Your task to perform on an android device: Clear the shopping cart on bestbuy.com. Add "dell alienware" to the cart on bestbuy.com Image 0: 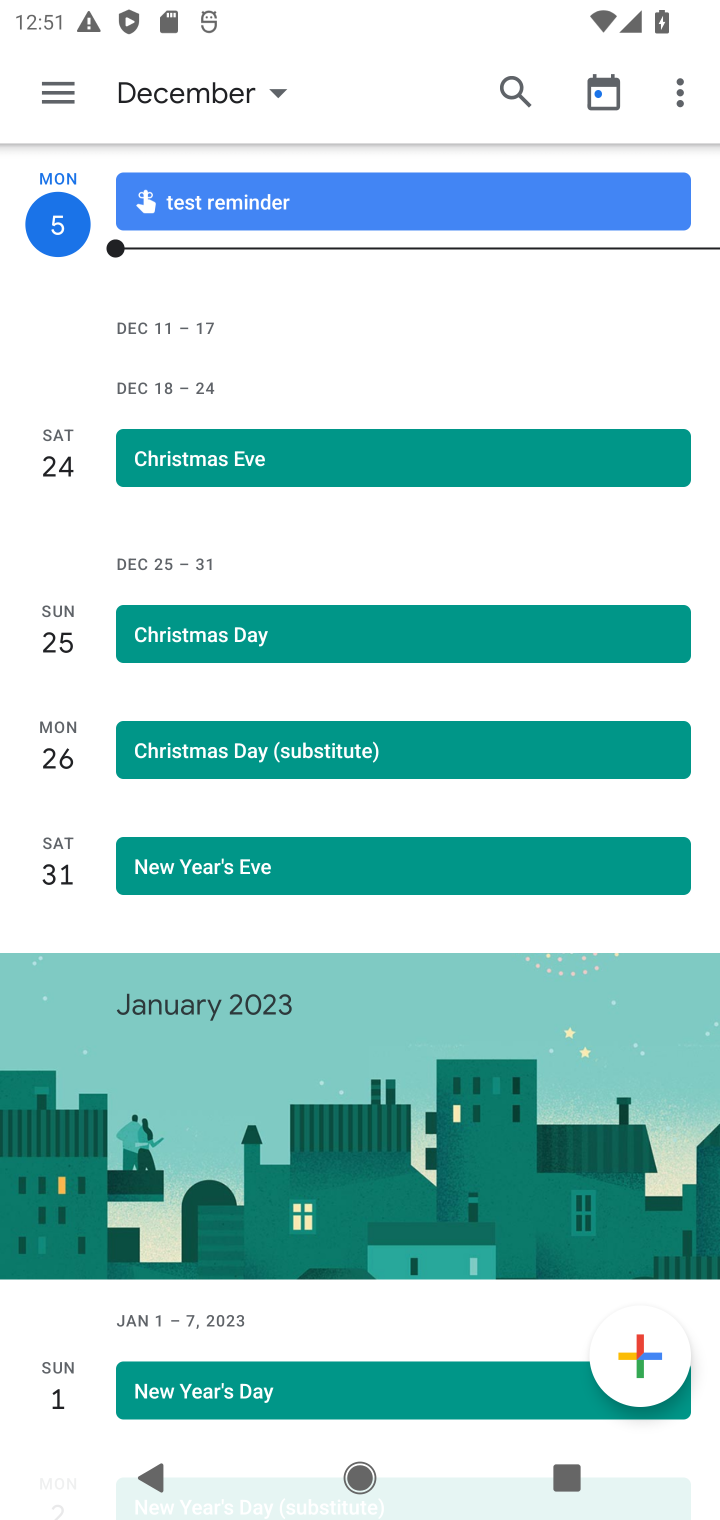
Step 0: press home button
Your task to perform on an android device: Clear the shopping cart on bestbuy.com. Add "dell alienware" to the cart on bestbuy.com Image 1: 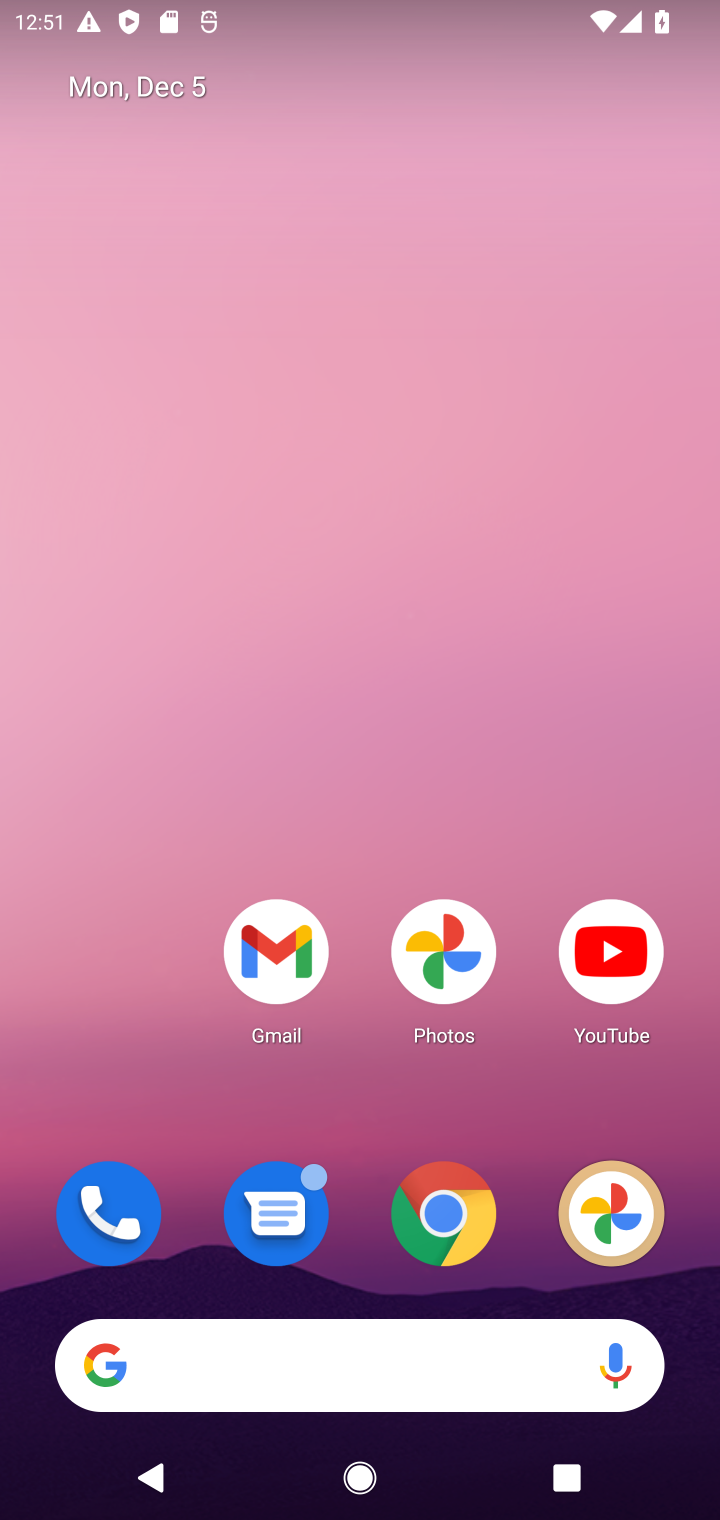
Step 1: click (432, 1224)
Your task to perform on an android device: Clear the shopping cart on bestbuy.com. Add "dell alienware" to the cart on bestbuy.com Image 2: 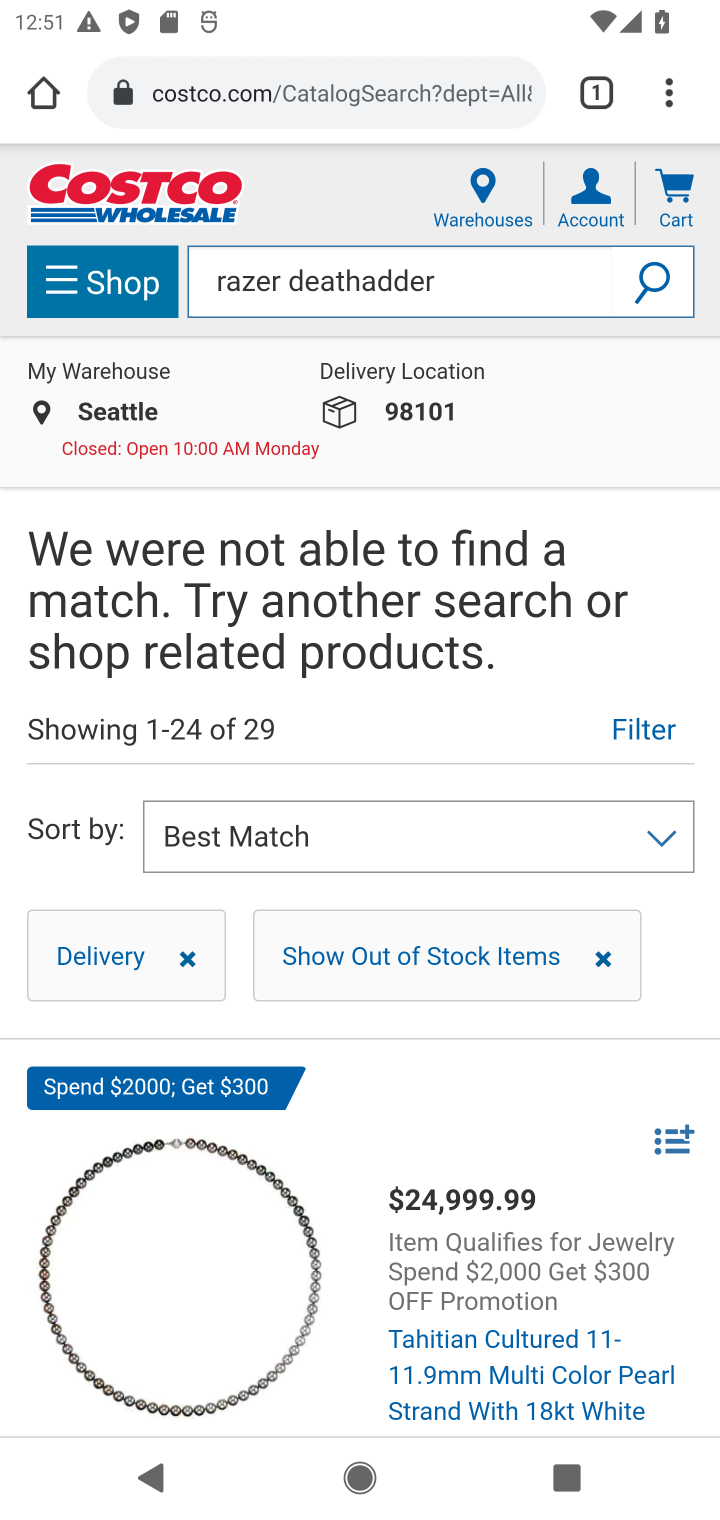
Step 2: click (278, 100)
Your task to perform on an android device: Clear the shopping cart on bestbuy.com. Add "dell alienware" to the cart on bestbuy.com Image 3: 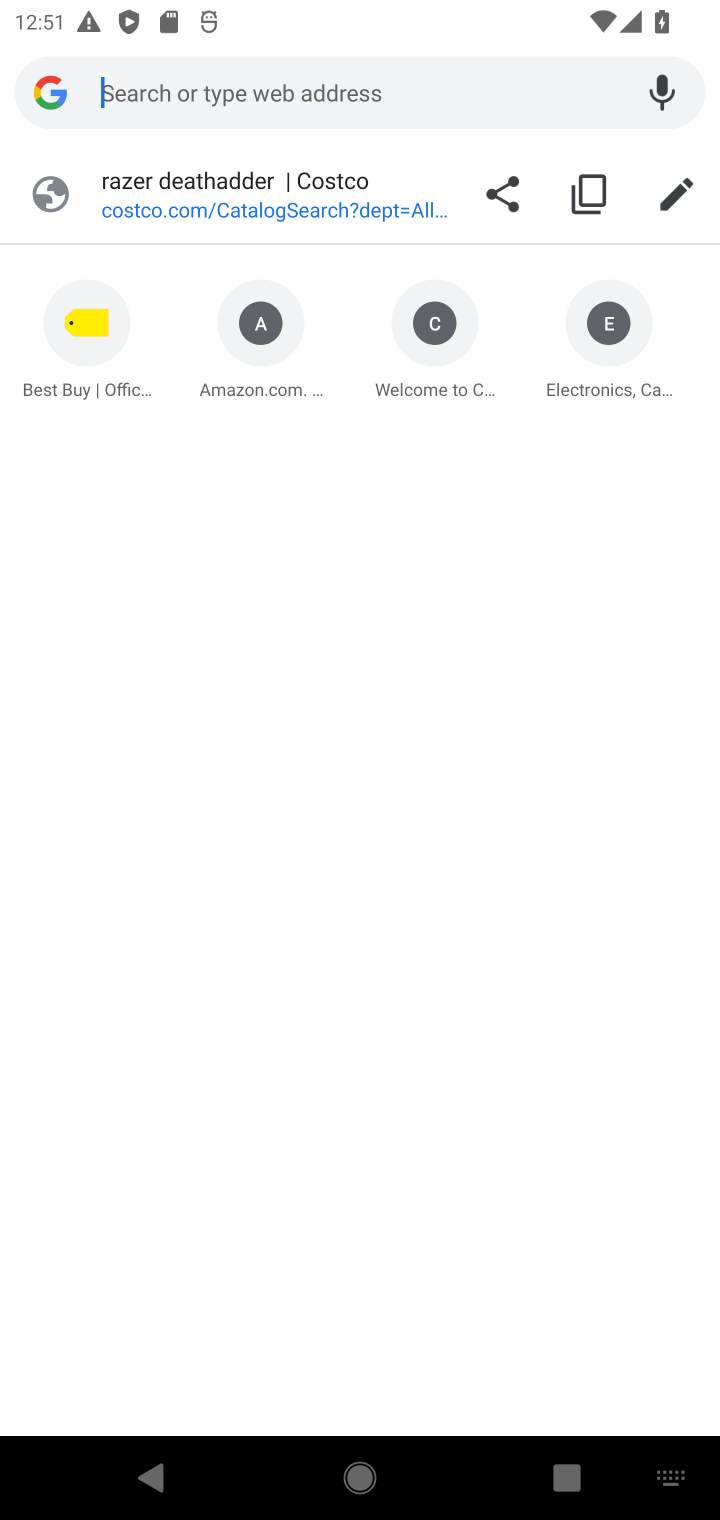
Step 3: click (78, 344)
Your task to perform on an android device: Clear the shopping cart on bestbuy.com. Add "dell alienware" to the cart on bestbuy.com Image 4: 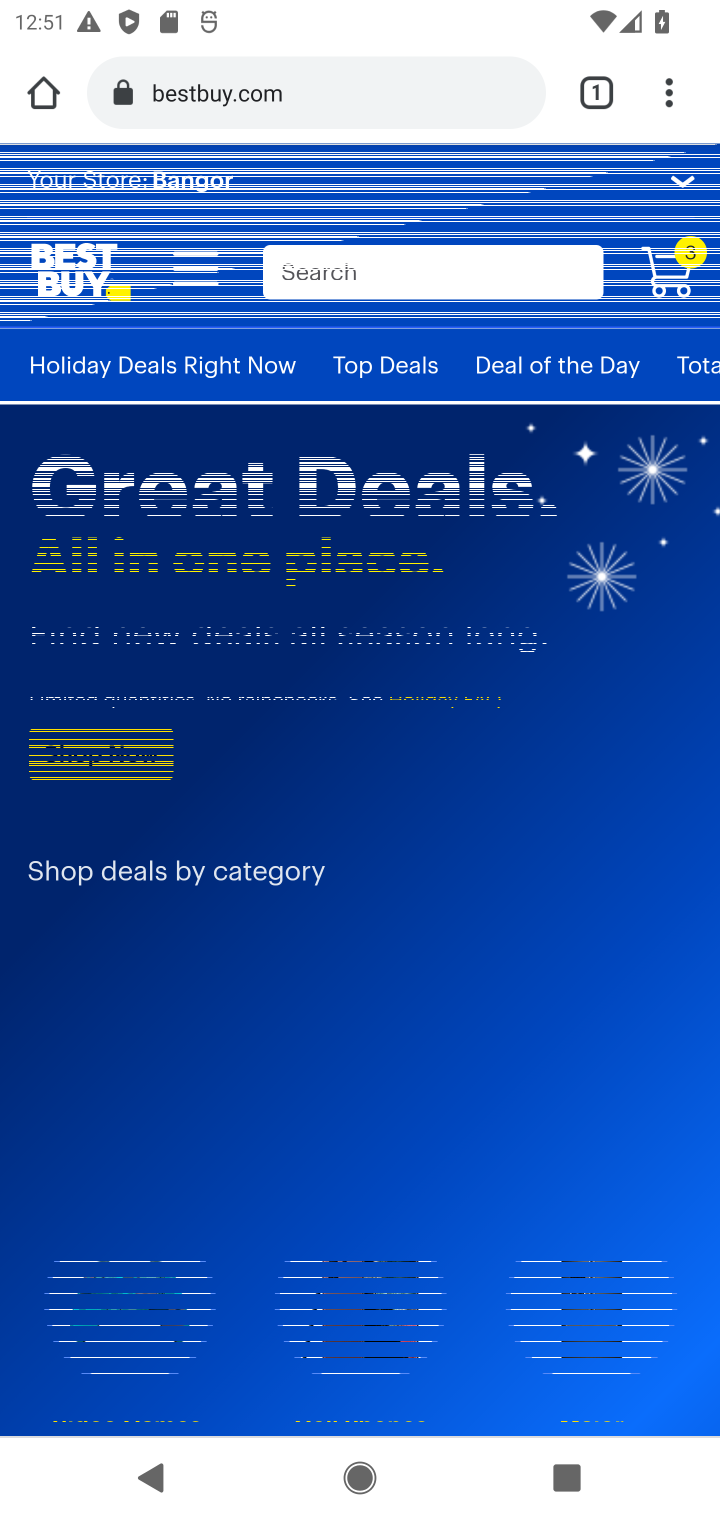
Step 4: click (679, 285)
Your task to perform on an android device: Clear the shopping cart on bestbuy.com. Add "dell alienware" to the cart on bestbuy.com Image 5: 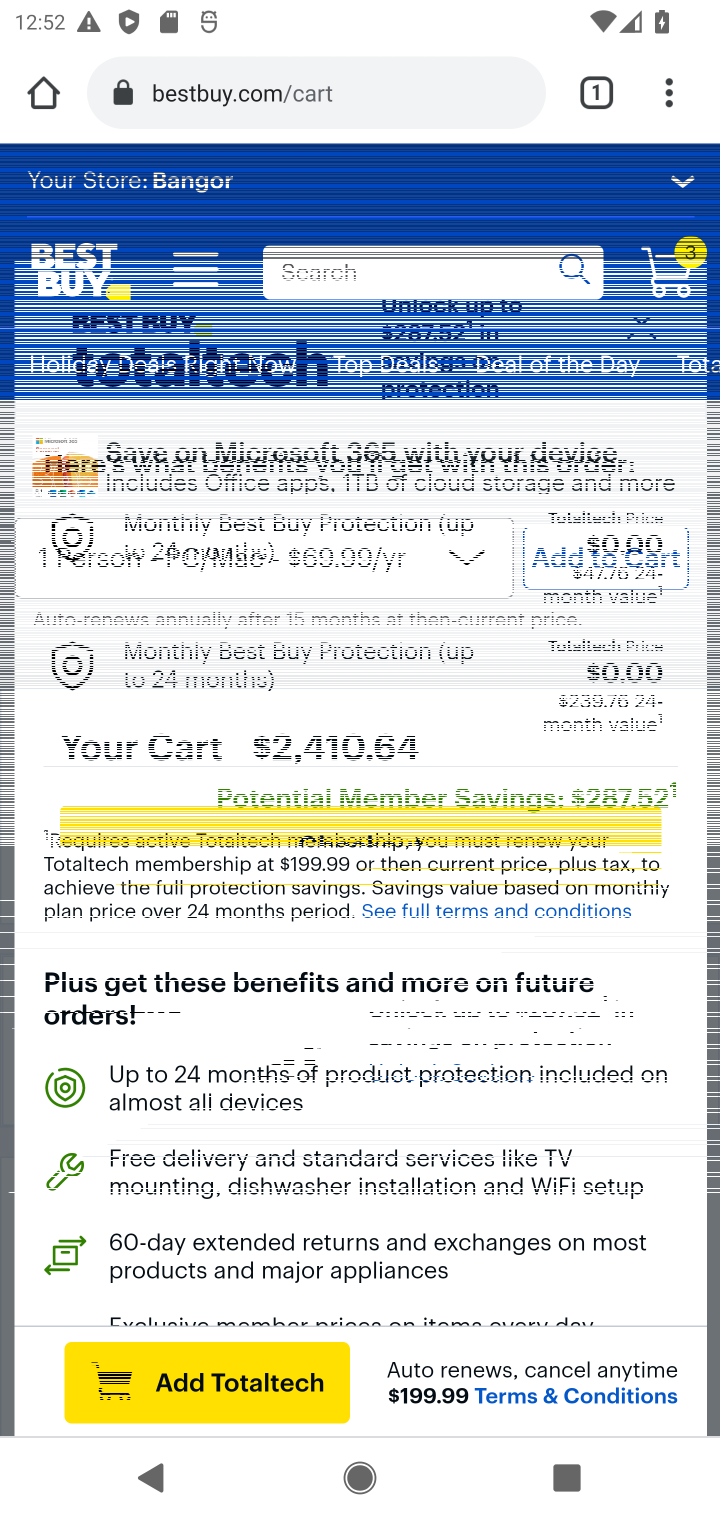
Step 5: drag from (353, 1079) to (434, 561)
Your task to perform on an android device: Clear the shopping cart on bestbuy.com. Add "dell alienware" to the cart on bestbuy.com Image 6: 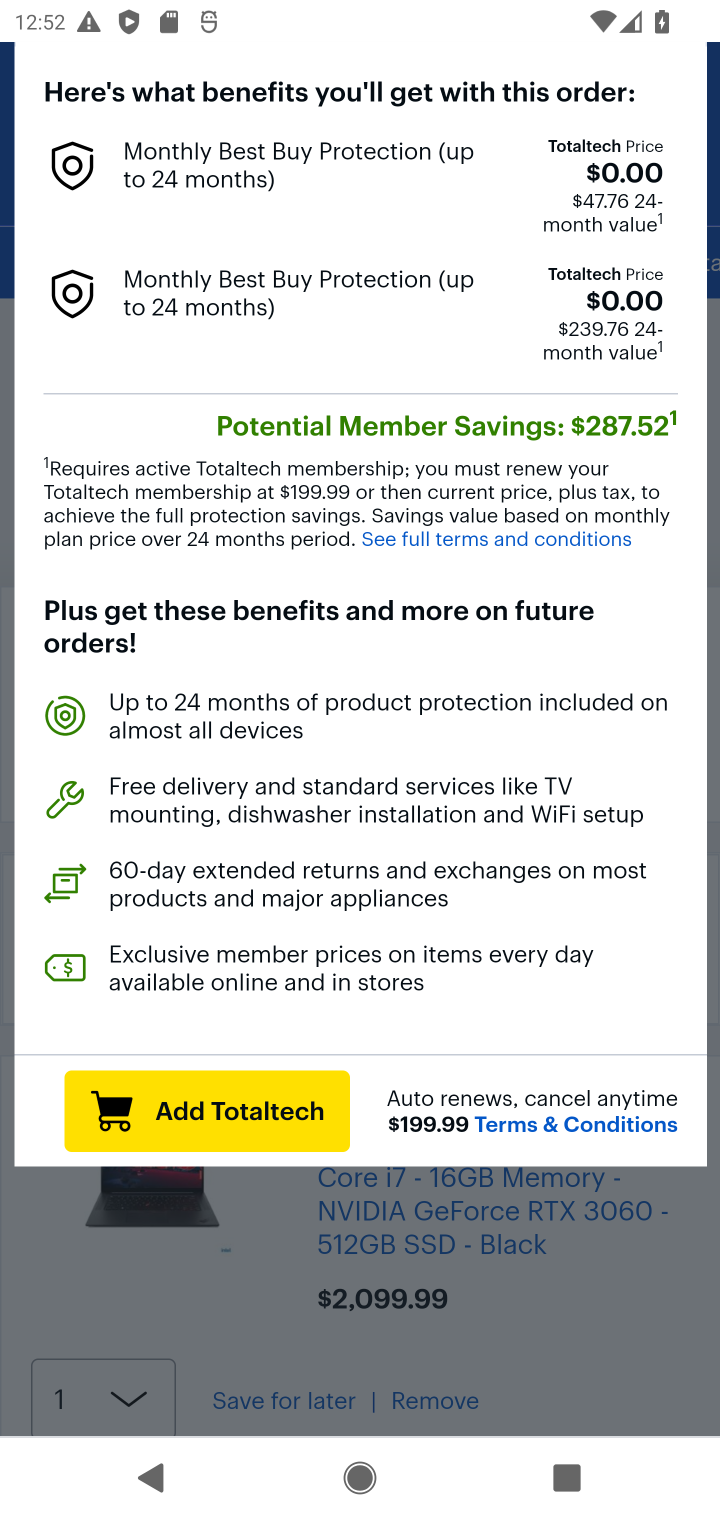
Step 6: click (442, 1404)
Your task to perform on an android device: Clear the shopping cart on bestbuy.com. Add "dell alienware" to the cart on bestbuy.com Image 7: 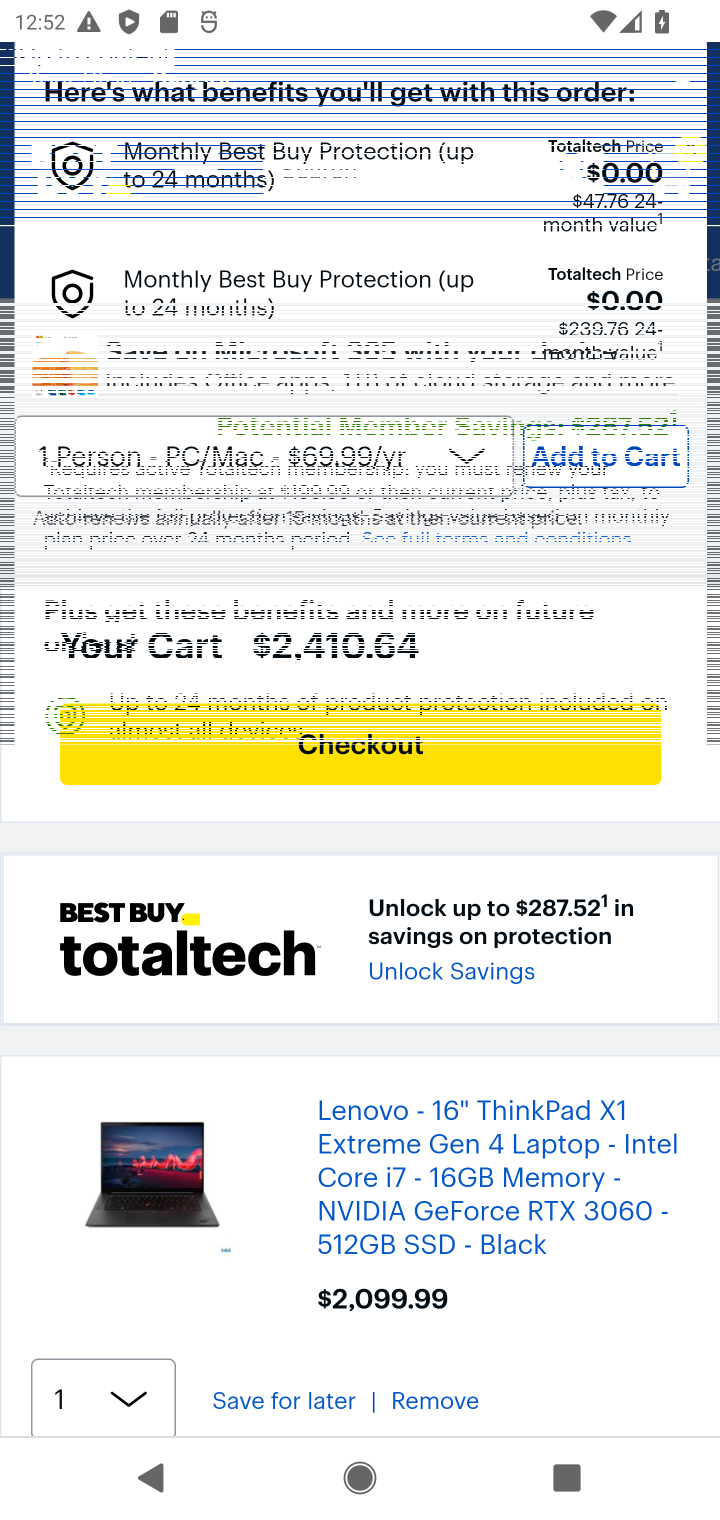
Step 7: drag from (503, 1185) to (520, 812)
Your task to perform on an android device: Clear the shopping cart on bestbuy.com. Add "dell alienware" to the cart on bestbuy.com Image 8: 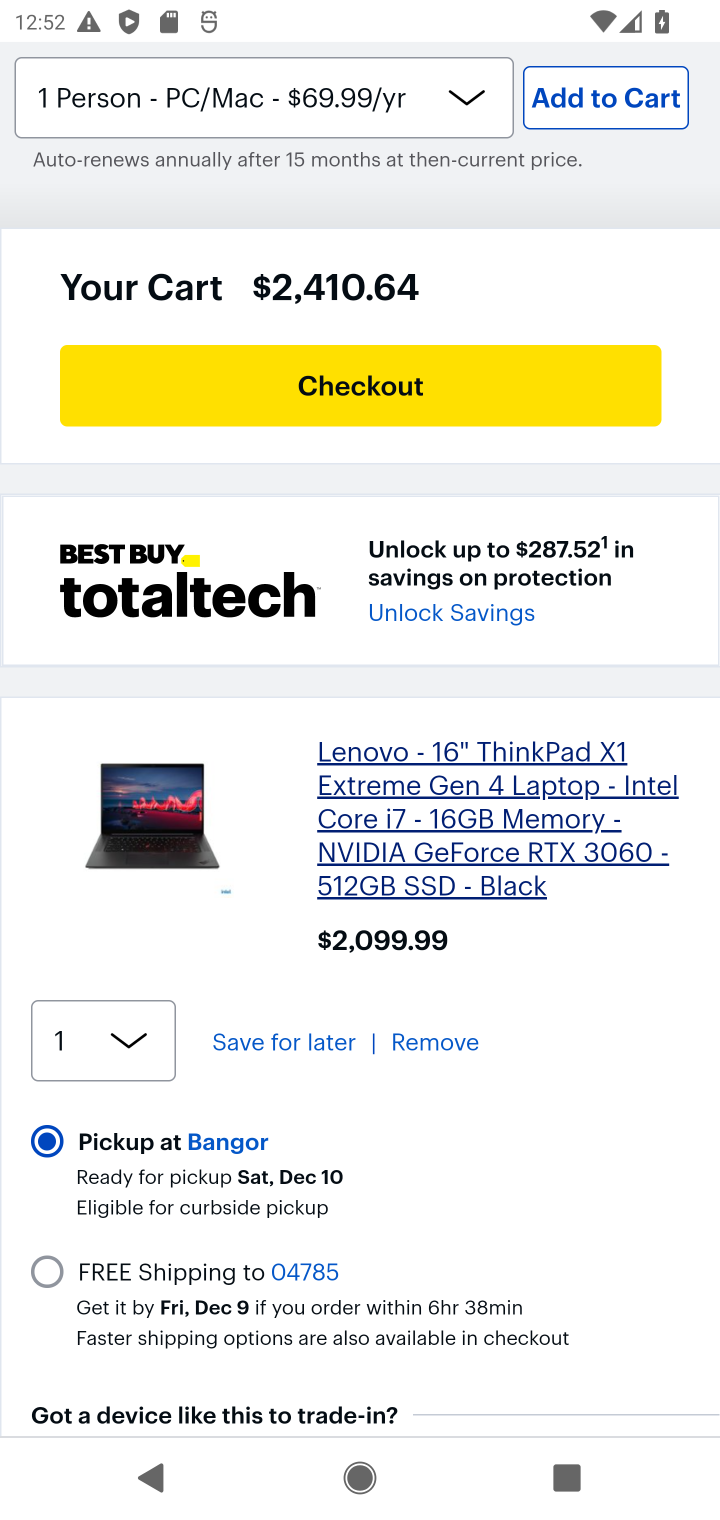
Step 8: click (436, 1053)
Your task to perform on an android device: Clear the shopping cart on bestbuy.com. Add "dell alienware" to the cart on bestbuy.com Image 9: 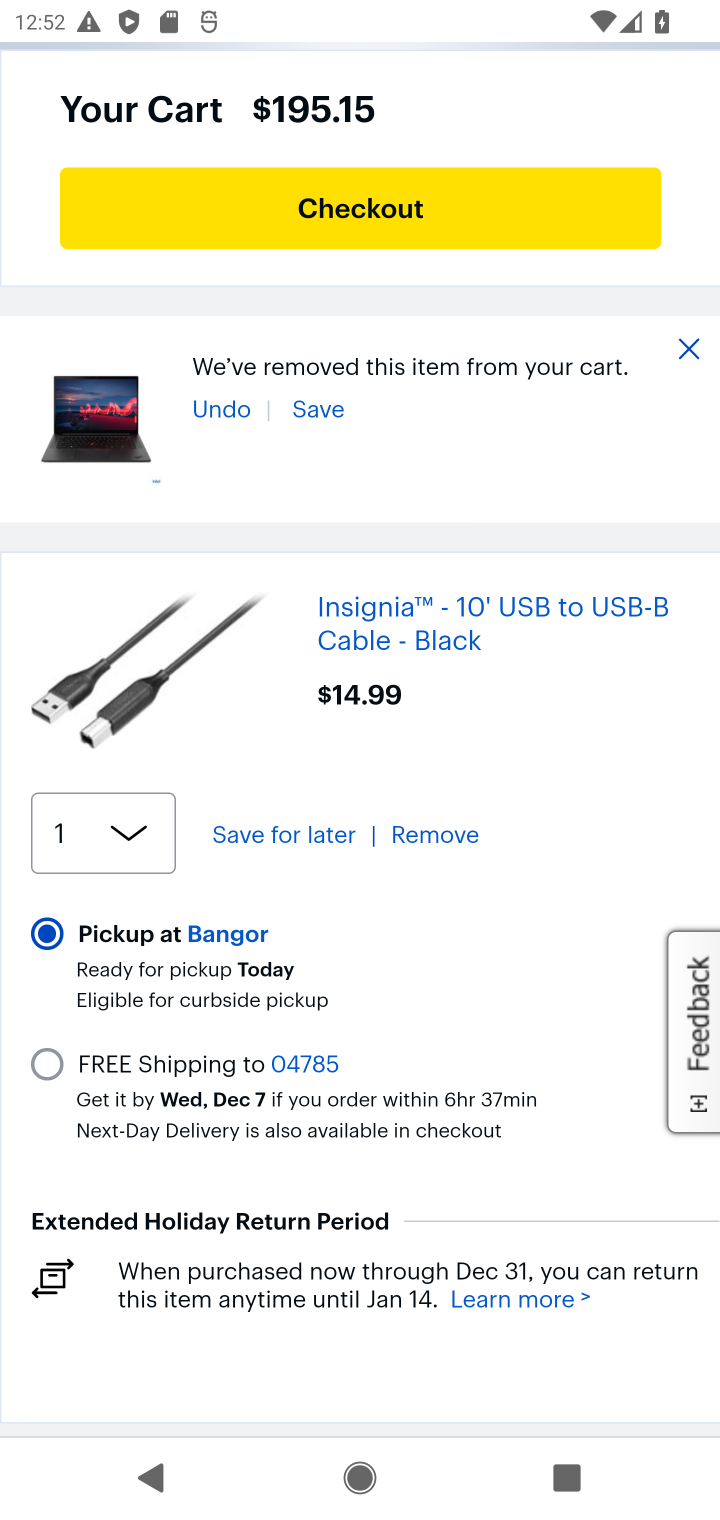
Step 9: click (445, 834)
Your task to perform on an android device: Clear the shopping cart on bestbuy.com. Add "dell alienware" to the cart on bestbuy.com Image 10: 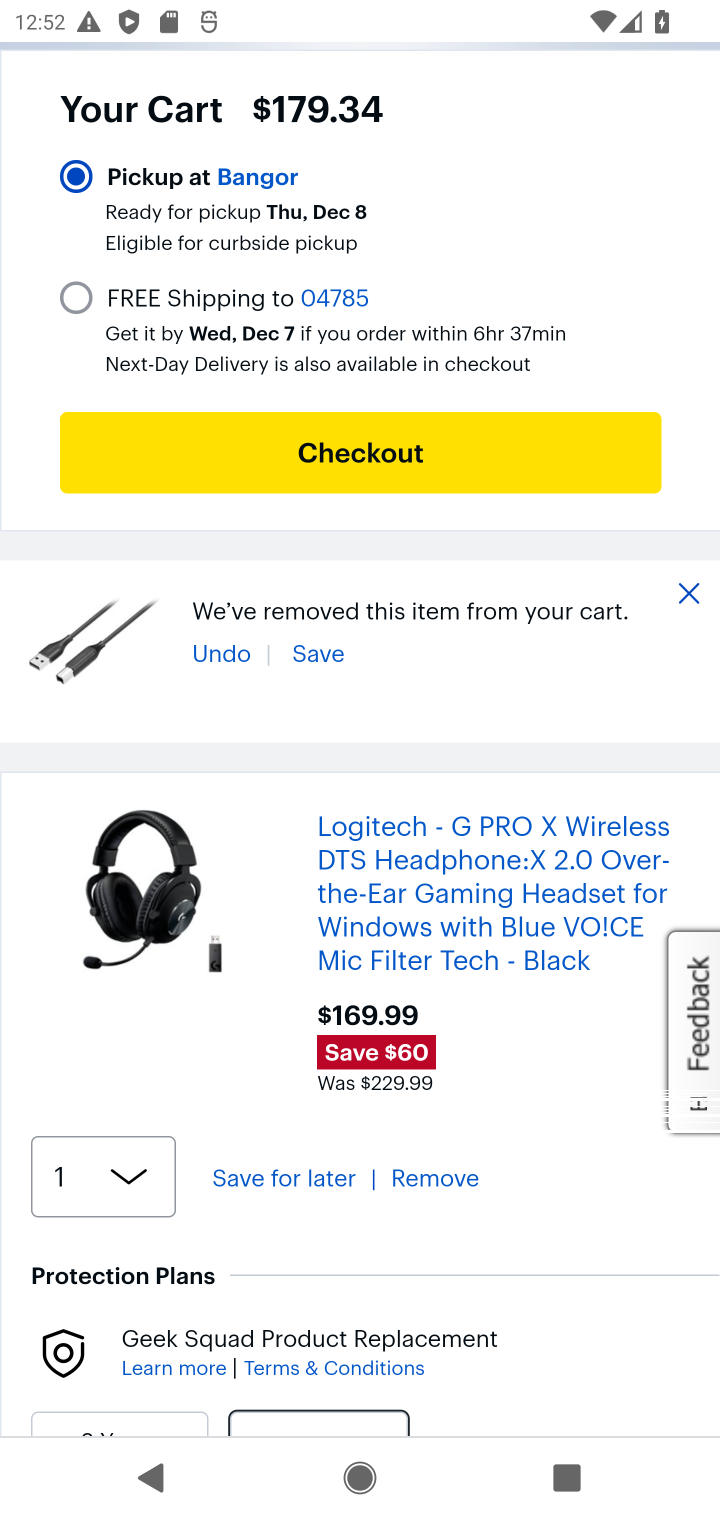
Step 10: click (417, 1178)
Your task to perform on an android device: Clear the shopping cart on bestbuy.com. Add "dell alienware" to the cart on bestbuy.com Image 11: 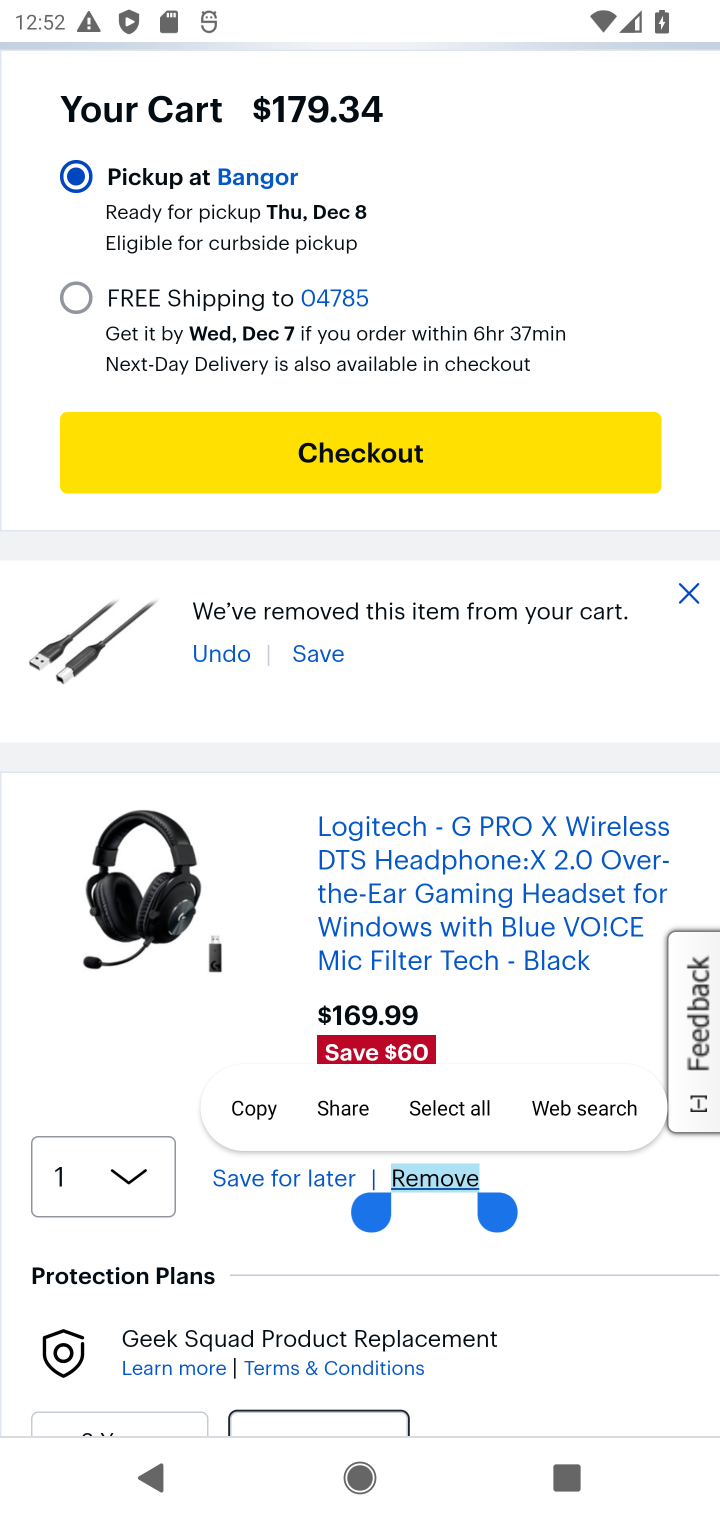
Step 11: click (463, 1177)
Your task to perform on an android device: Clear the shopping cart on bestbuy.com. Add "dell alienware" to the cart on bestbuy.com Image 12: 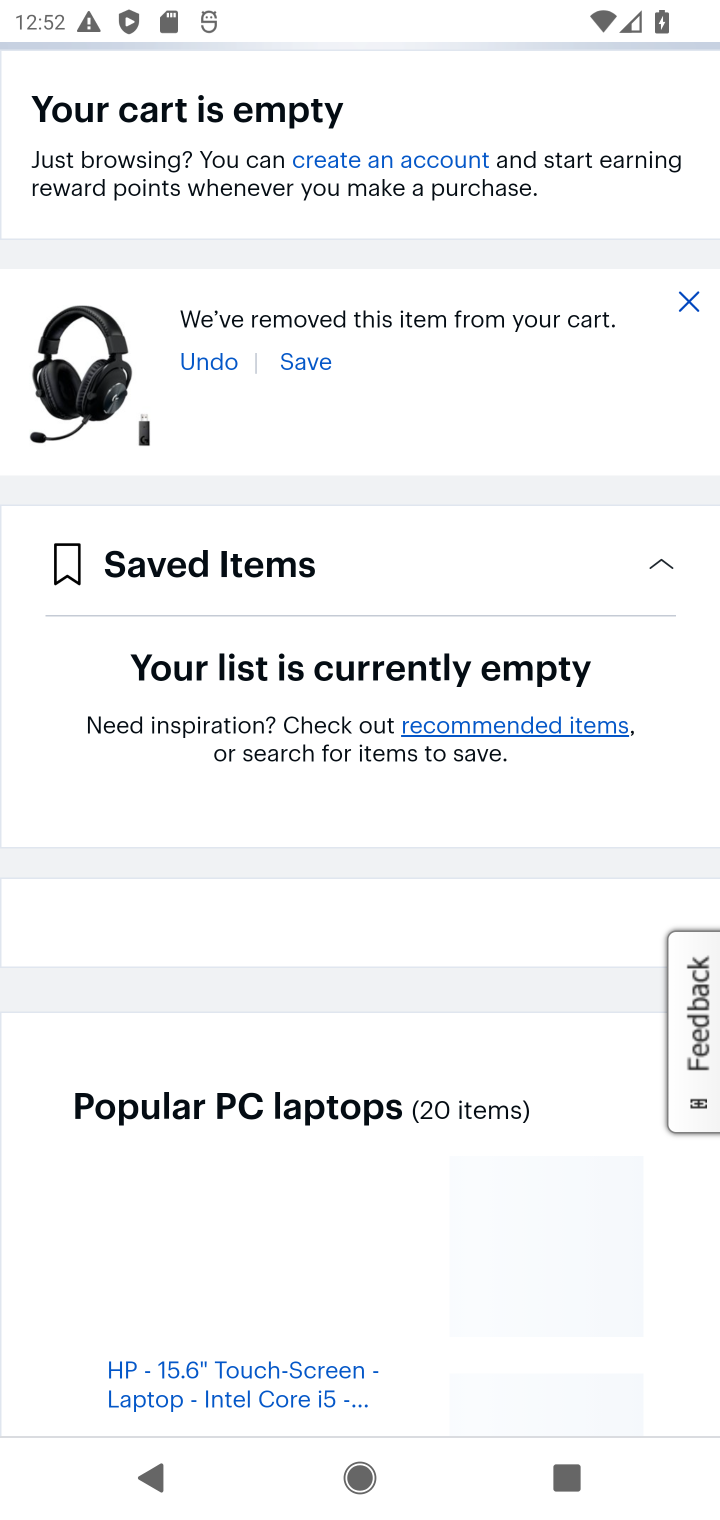
Step 12: drag from (375, 514) to (337, 789)
Your task to perform on an android device: Clear the shopping cart on bestbuy.com. Add "dell alienware" to the cart on bestbuy.com Image 13: 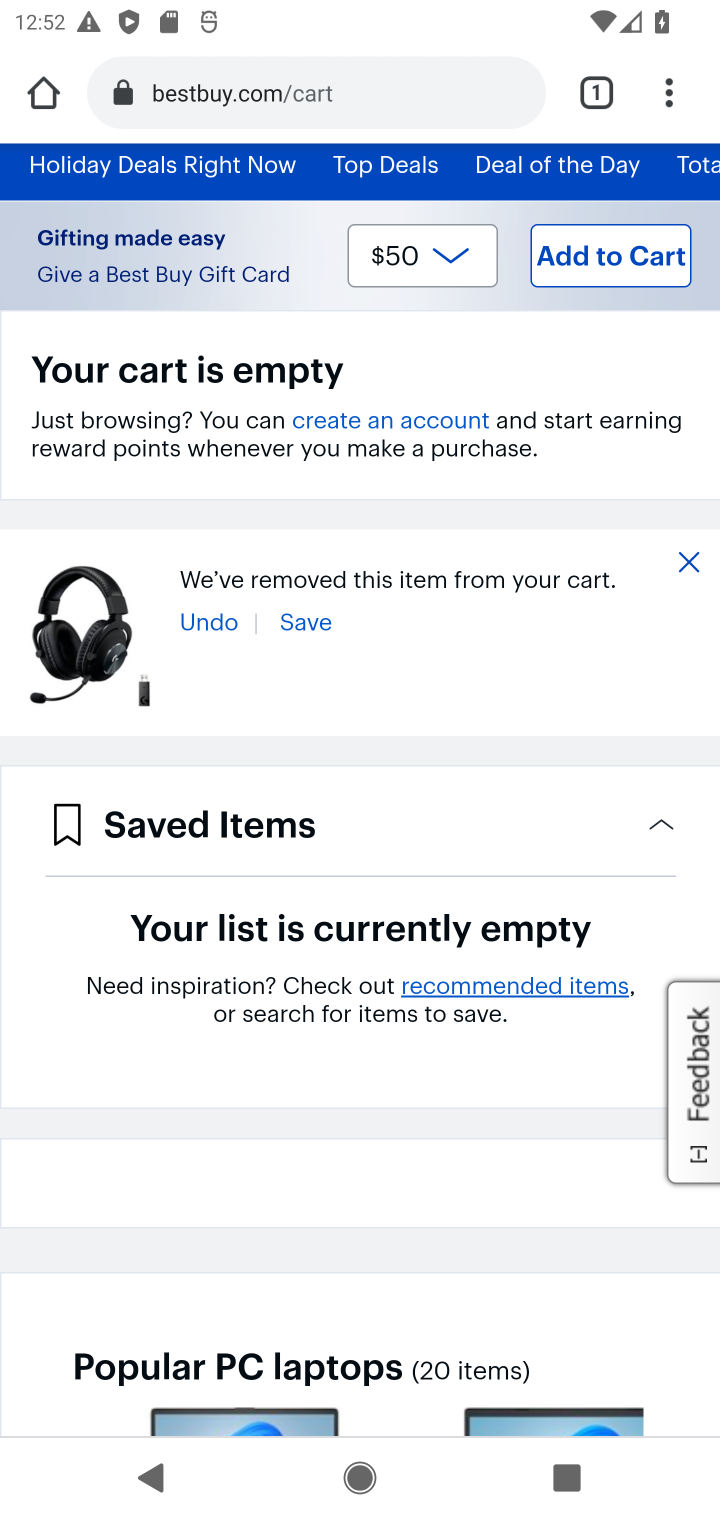
Step 13: drag from (417, 363) to (440, 560)
Your task to perform on an android device: Clear the shopping cart on bestbuy.com. Add "dell alienware" to the cart on bestbuy.com Image 14: 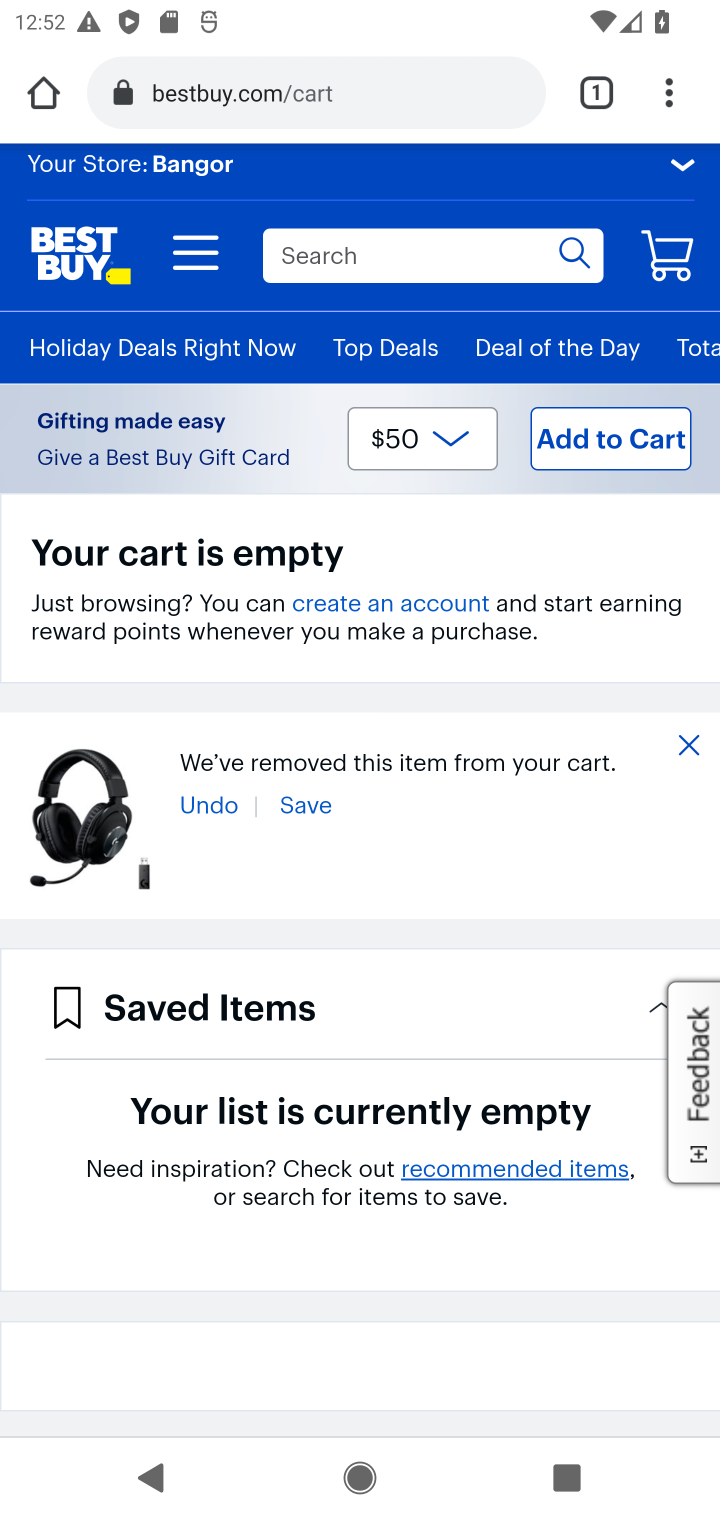
Step 14: click (307, 265)
Your task to perform on an android device: Clear the shopping cart on bestbuy.com. Add "dell alienware" to the cart on bestbuy.com Image 15: 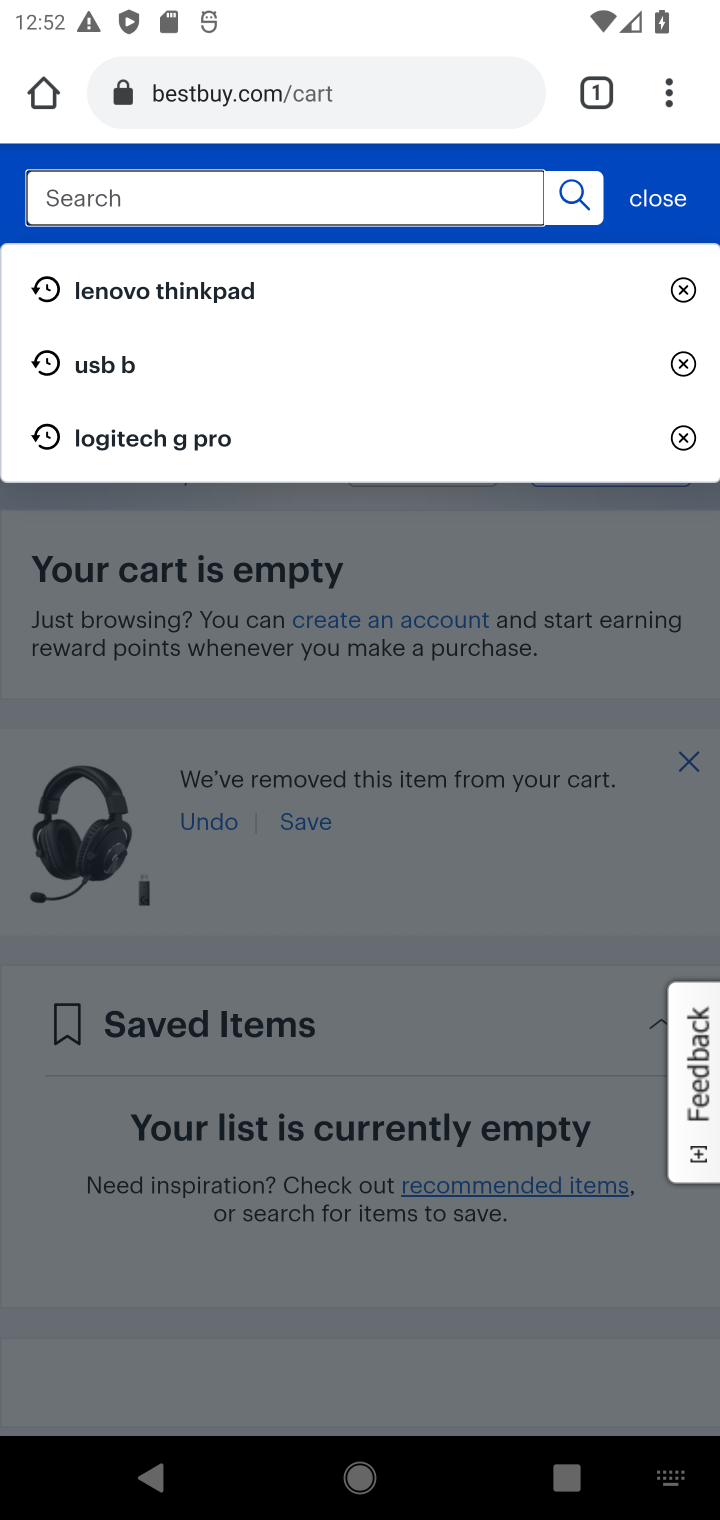
Step 15: type "dell alienware"
Your task to perform on an android device: Clear the shopping cart on bestbuy.com. Add "dell alienware" to the cart on bestbuy.com Image 16: 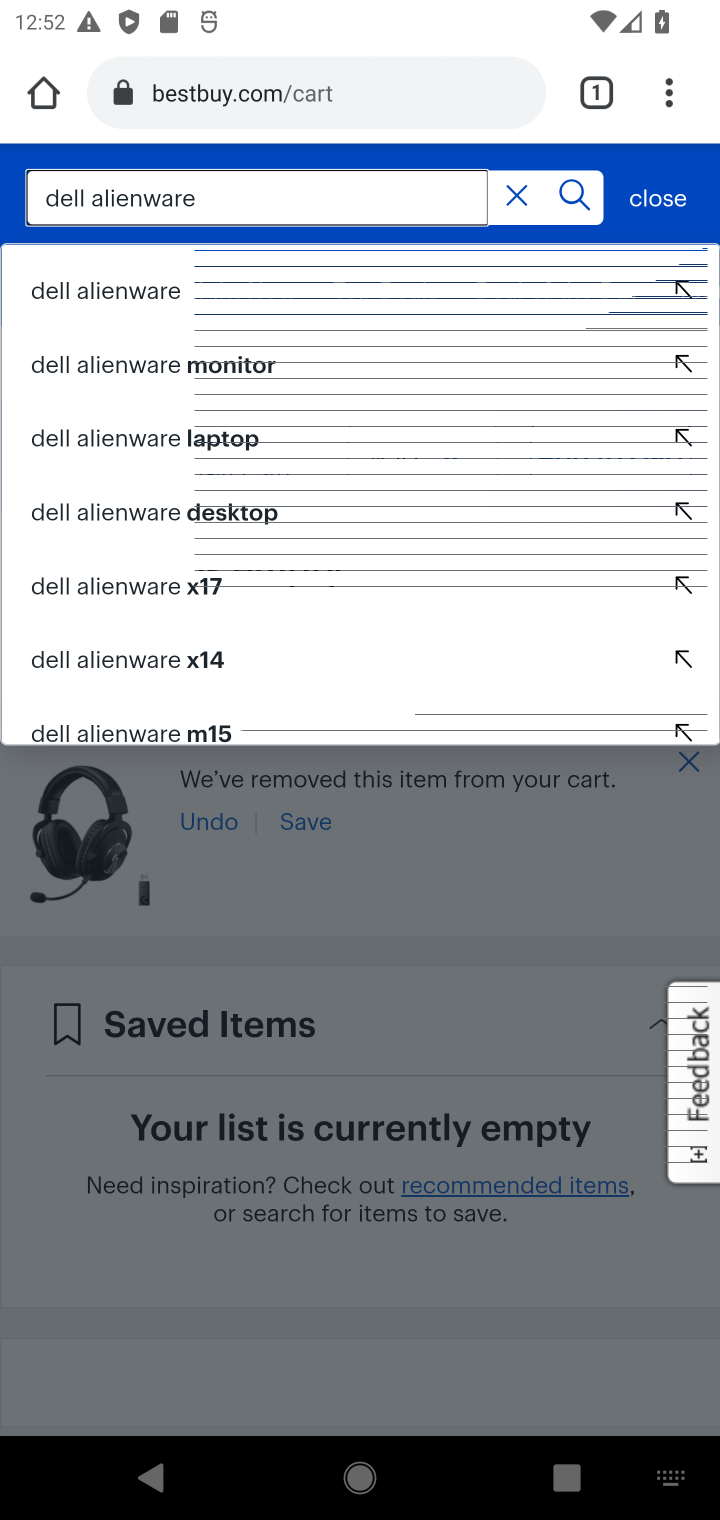
Step 16: click (82, 299)
Your task to perform on an android device: Clear the shopping cart on bestbuy.com. Add "dell alienware" to the cart on bestbuy.com Image 17: 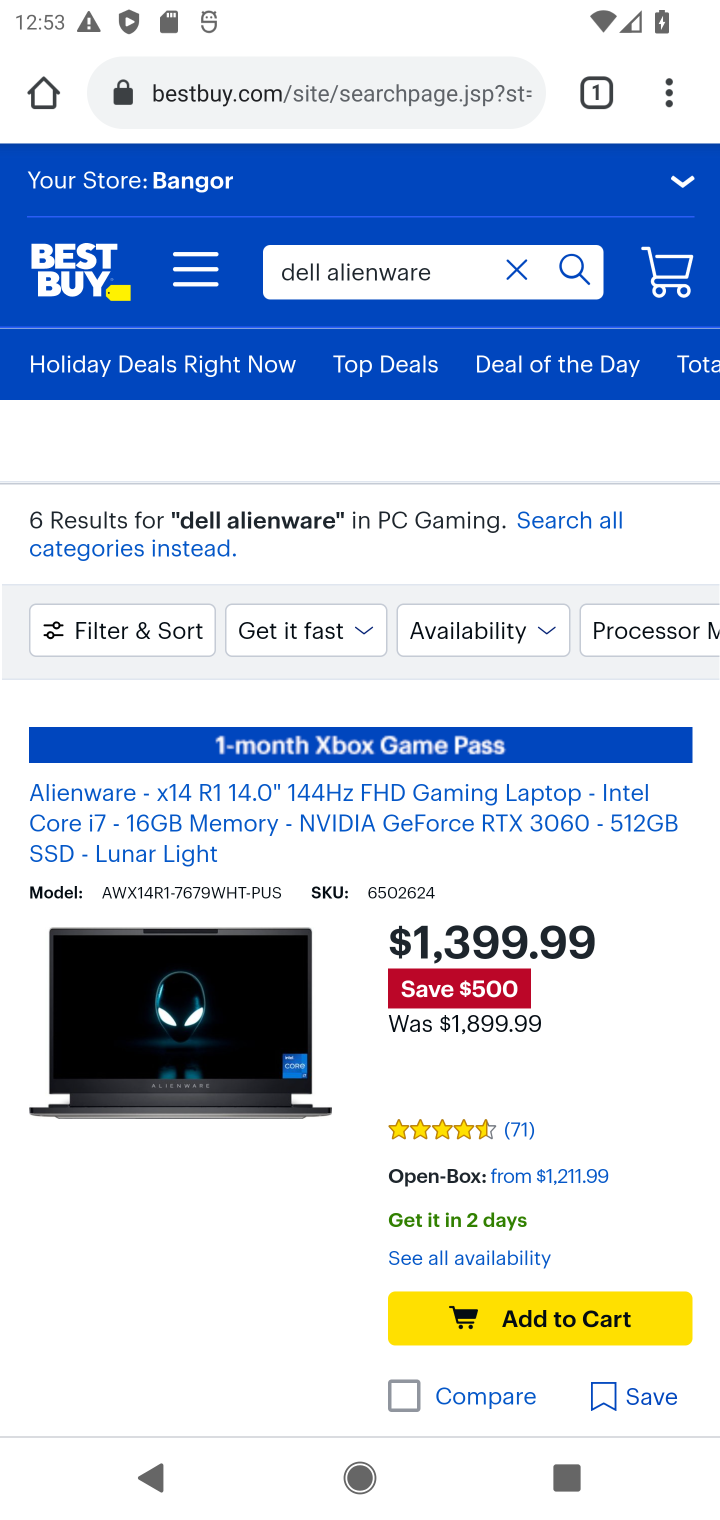
Step 17: drag from (294, 764) to (315, 523)
Your task to perform on an android device: Clear the shopping cart on bestbuy.com. Add "dell alienware" to the cart on bestbuy.com Image 18: 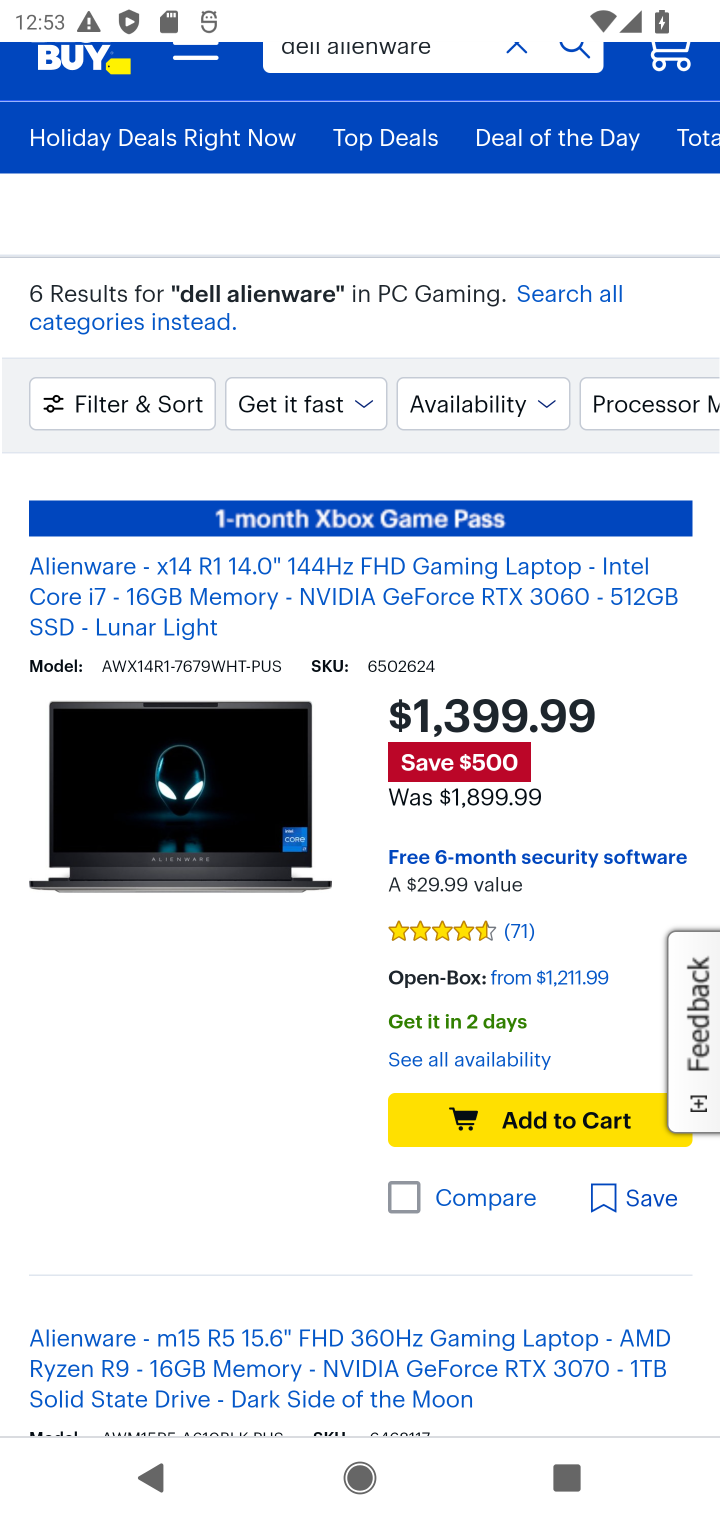
Step 18: click (528, 1125)
Your task to perform on an android device: Clear the shopping cart on bestbuy.com. Add "dell alienware" to the cart on bestbuy.com Image 19: 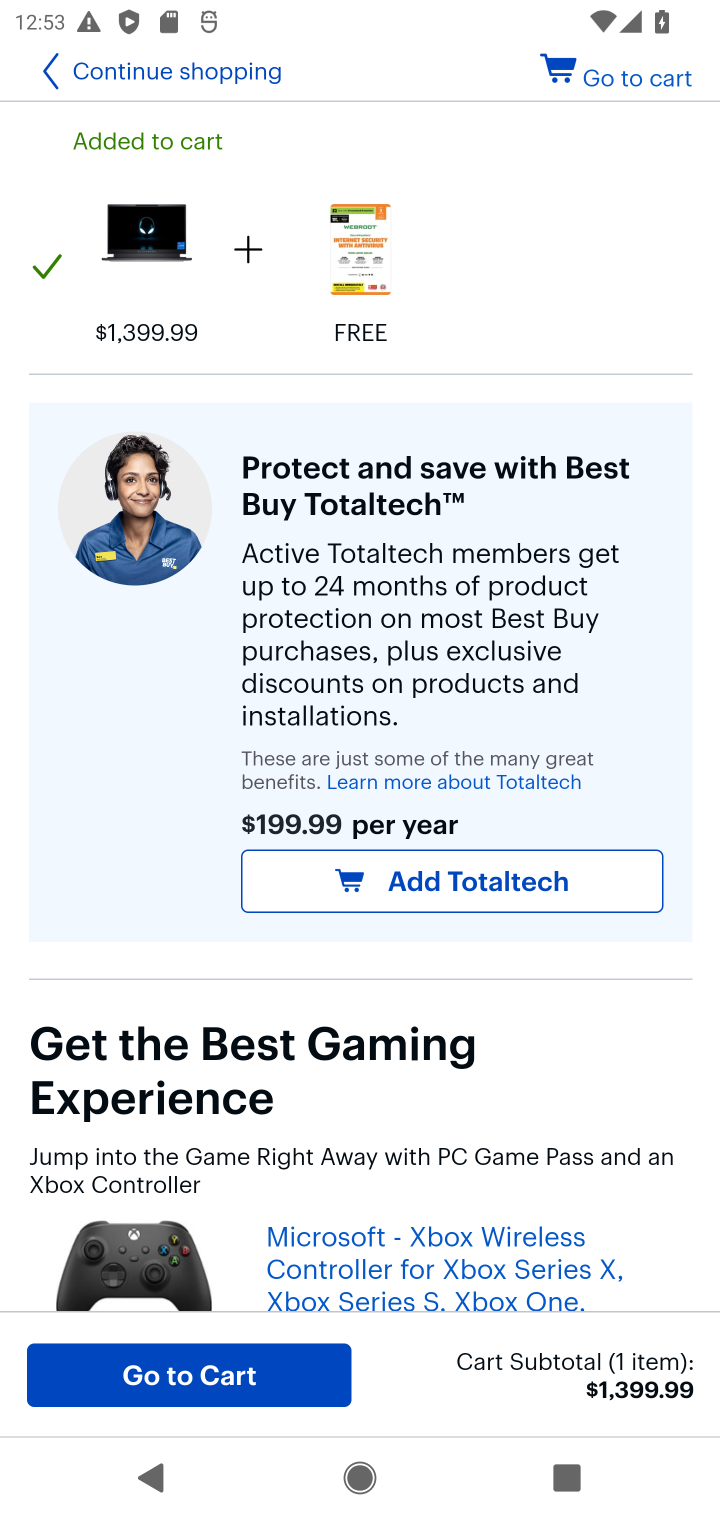
Step 19: task complete